Your task to perform on an android device: check storage Image 0: 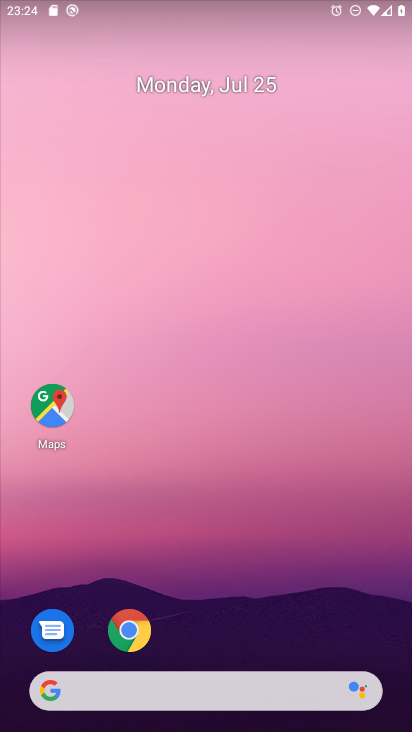
Step 0: drag from (313, 630) to (219, 69)
Your task to perform on an android device: check storage Image 1: 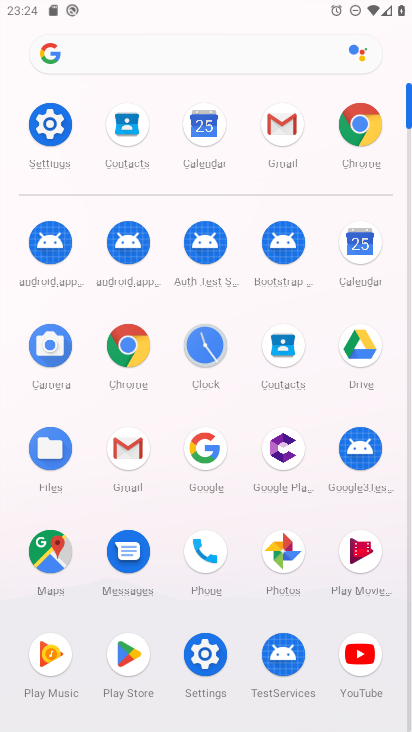
Step 1: click (55, 127)
Your task to perform on an android device: check storage Image 2: 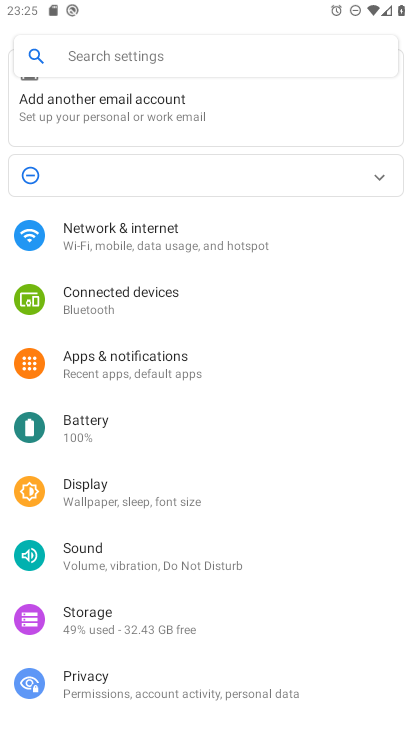
Step 2: click (144, 620)
Your task to perform on an android device: check storage Image 3: 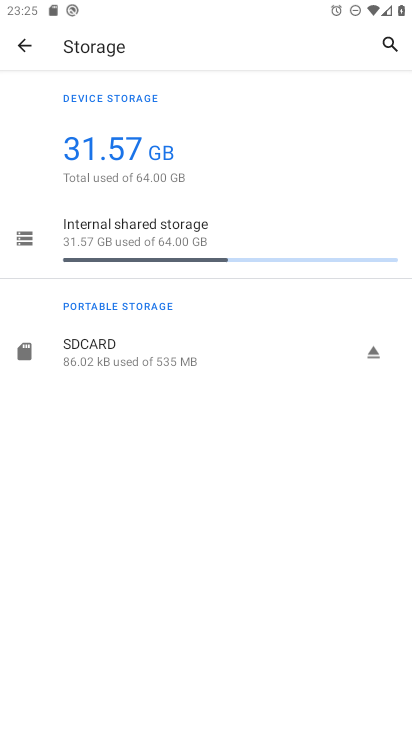
Step 3: task complete